Your task to perform on an android device: add a contact Image 0: 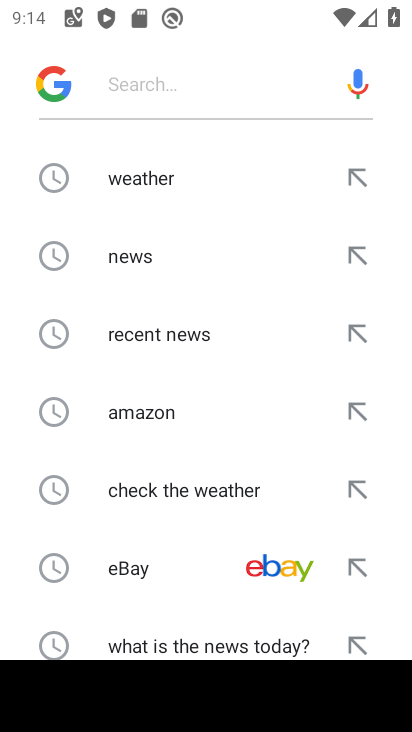
Step 0: press home button
Your task to perform on an android device: add a contact Image 1: 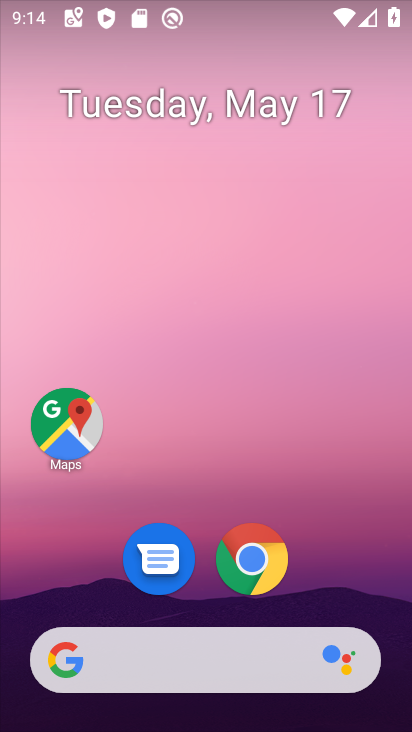
Step 1: drag from (136, 724) to (395, 247)
Your task to perform on an android device: add a contact Image 2: 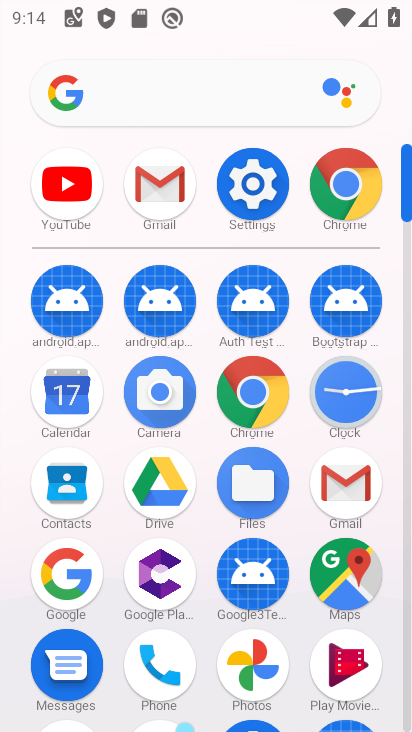
Step 2: click (64, 501)
Your task to perform on an android device: add a contact Image 3: 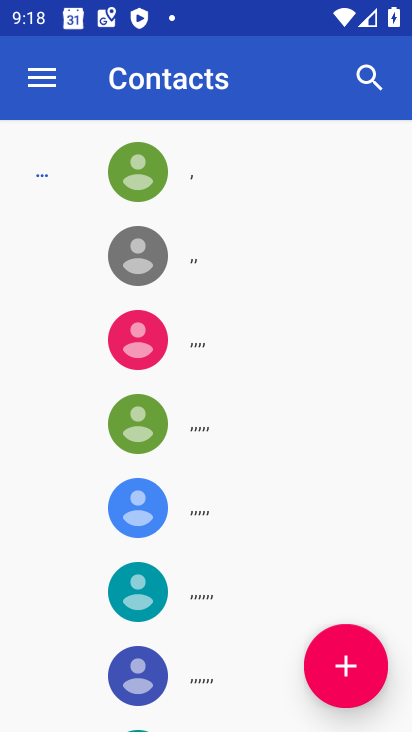
Step 3: press home button
Your task to perform on an android device: add a contact Image 4: 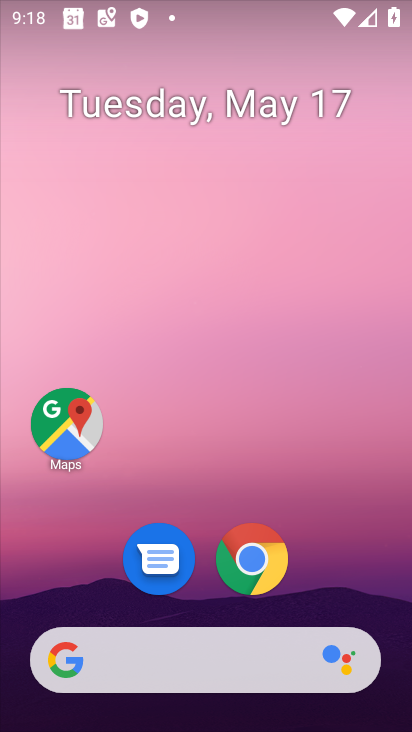
Step 4: drag from (248, 727) to (231, 271)
Your task to perform on an android device: add a contact Image 5: 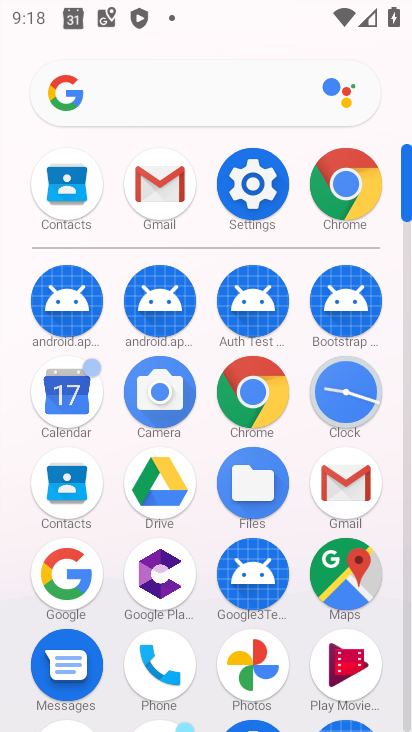
Step 5: click (64, 479)
Your task to perform on an android device: add a contact Image 6: 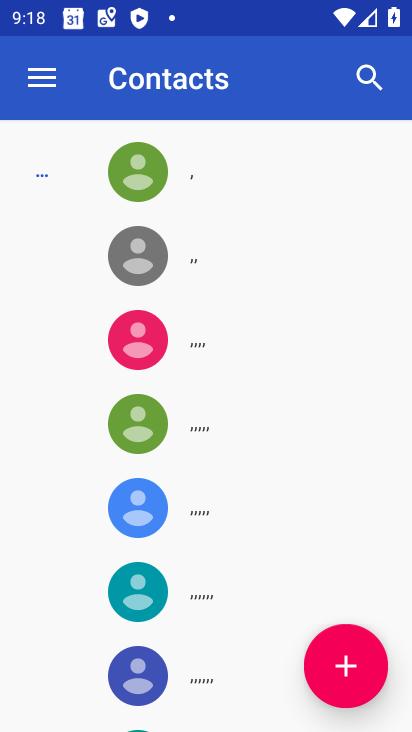
Step 6: click (345, 670)
Your task to perform on an android device: add a contact Image 7: 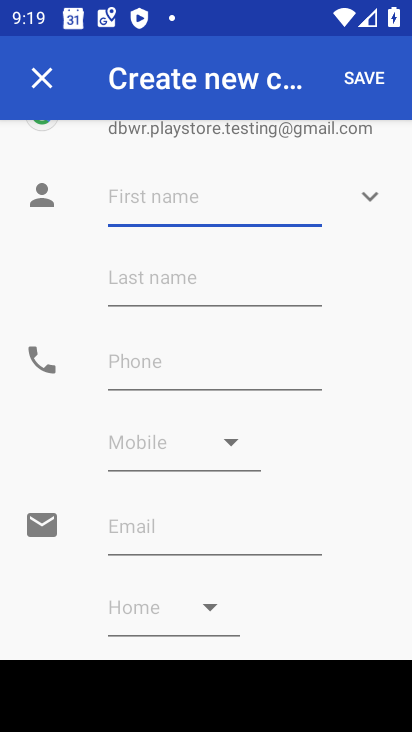
Step 7: type "jgchj"
Your task to perform on an android device: add a contact Image 8: 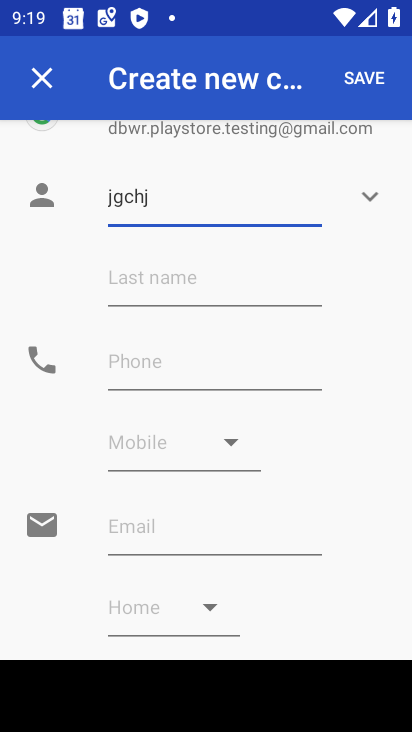
Step 8: click (250, 375)
Your task to perform on an android device: add a contact Image 9: 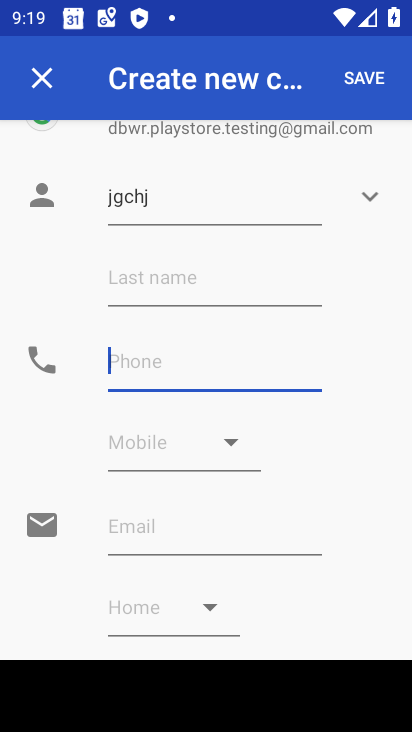
Step 9: type "75"
Your task to perform on an android device: add a contact Image 10: 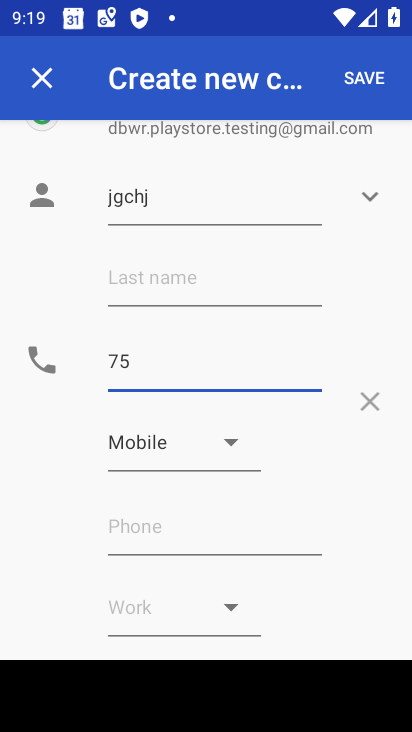
Step 10: click (364, 67)
Your task to perform on an android device: add a contact Image 11: 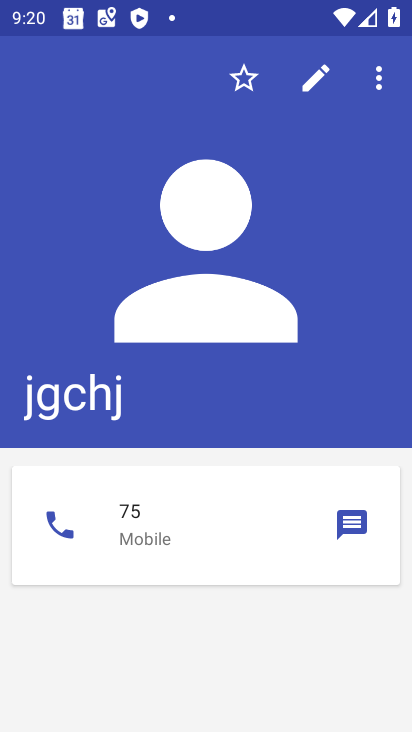
Step 11: task complete